Your task to perform on an android device: turn off notifications settings in the gmail app Image 0: 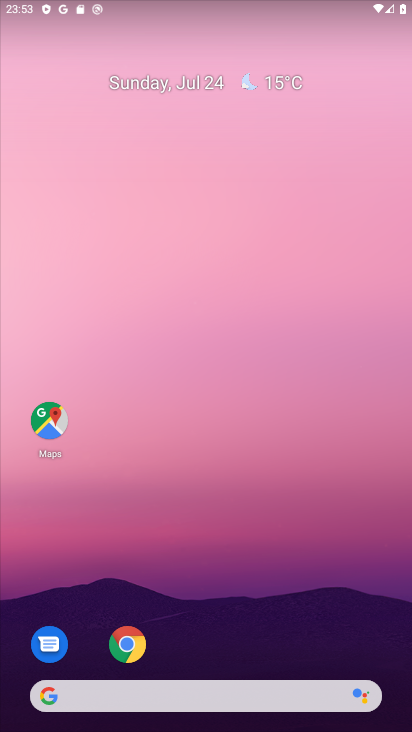
Step 0: drag from (189, 595) to (169, 353)
Your task to perform on an android device: turn off notifications settings in the gmail app Image 1: 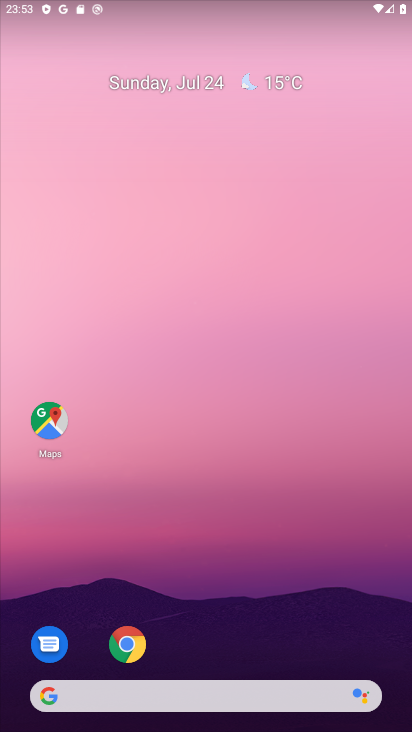
Step 1: drag from (207, 704) to (207, 650)
Your task to perform on an android device: turn off notifications settings in the gmail app Image 2: 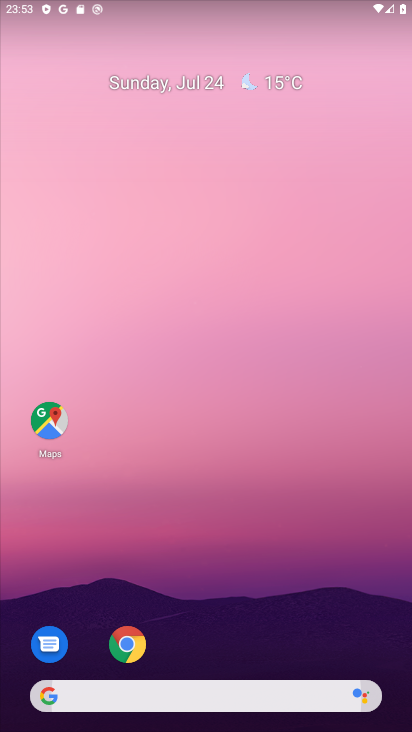
Step 2: click (155, 193)
Your task to perform on an android device: turn off notifications settings in the gmail app Image 3: 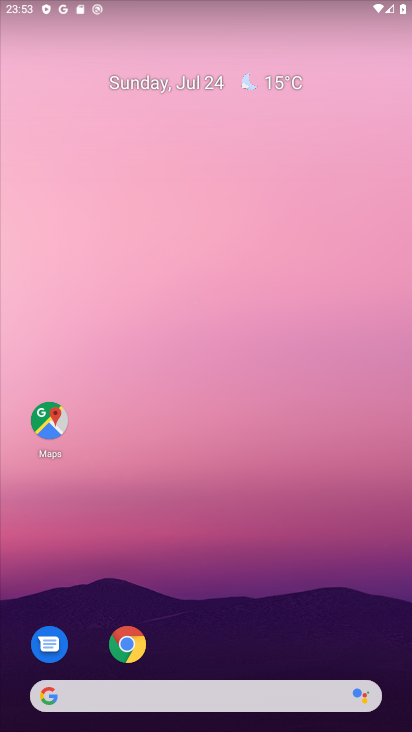
Step 3: drag from (208, 692) to (216, 132)
Your task to perform on an android device: turn off notifications settings in the gmail app Image 4: 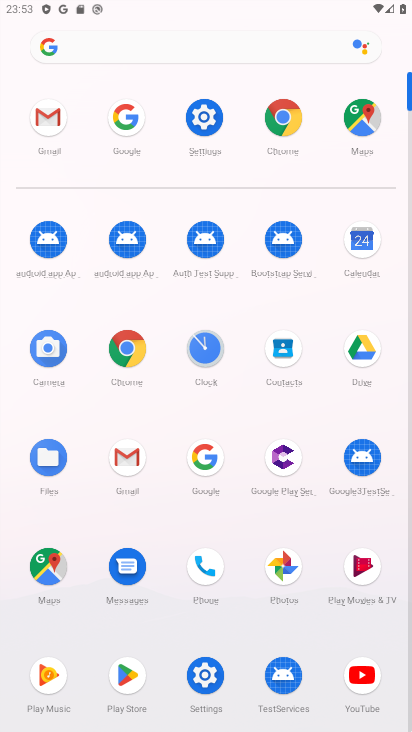
Step 4: click (130, 442)
Your task to perform on an android device: turn off notifications settings in the gmail app Image 5: 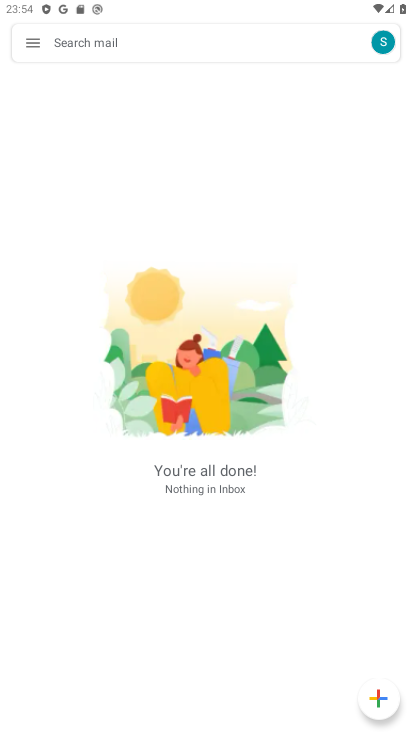
Step 5: click (31, 41)
Your task to perform on an android device: turn off notifications settings in the gmail app Image 6: 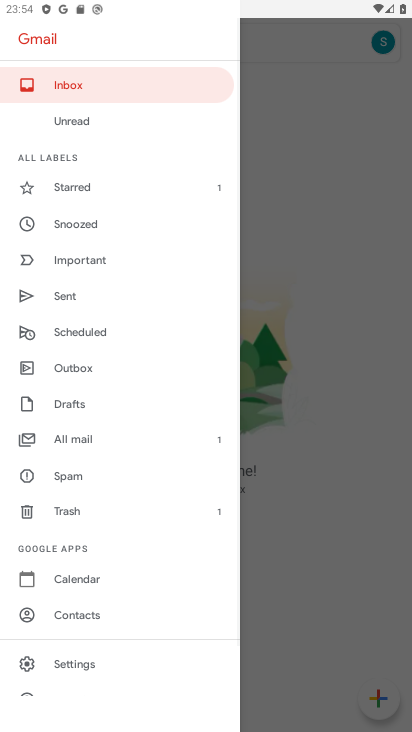
Step 6: click (72, 665)
Your task to perform on an android device: turn off notifications settings in the gmail app Image 7: 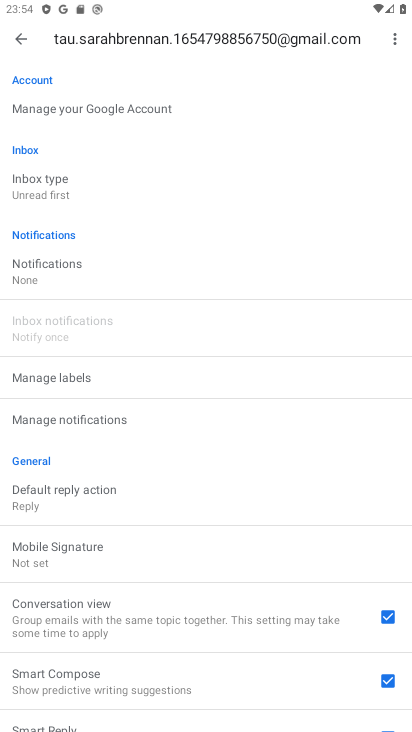
Step 7: drag from (188, 669) to (191, 604)
Your task to perform on an android device: turn off notifications settings in the gmail app Image 8: 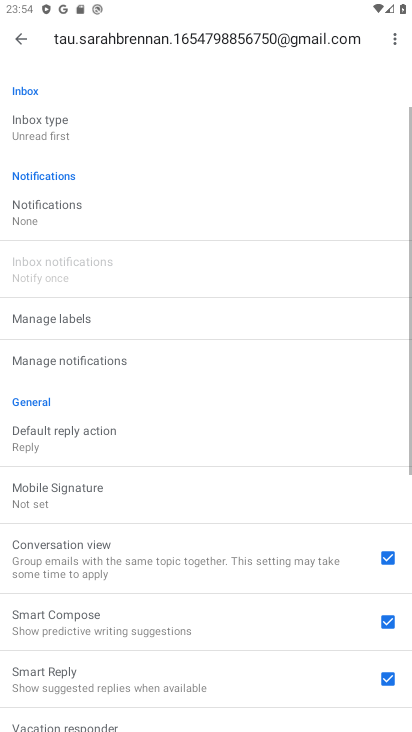
Step 8: click (185, 523)
Your task to perform on an android device: turn off notifications settings in the gmail app Image 9: 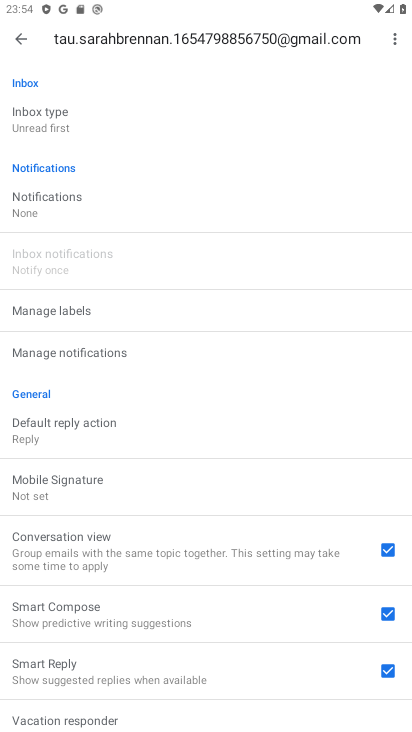
Step 9: task complete